Your task to perform on an android device: open the mobile data screen to see how much data has been used Image 0: 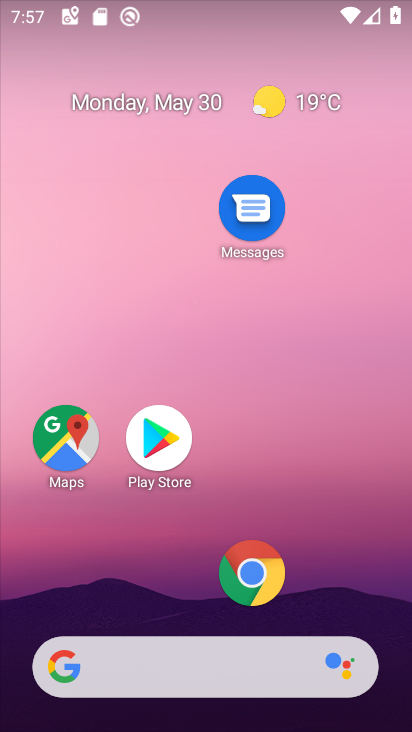
Step 0: drag from (174, 596) to (299, 6)
Your task to perform on an android device: open the mobile data screen to see how much data has been used Image 1: 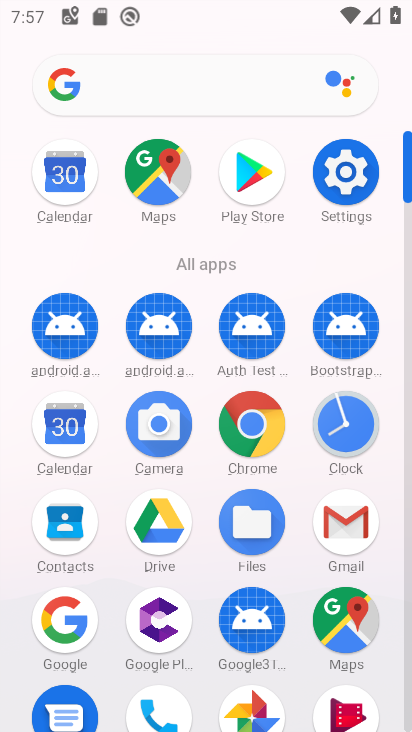
Step 1: click (360, 158)
Your task to perform on an android device: open the mobile data screen to see how much data has been used Image 2: 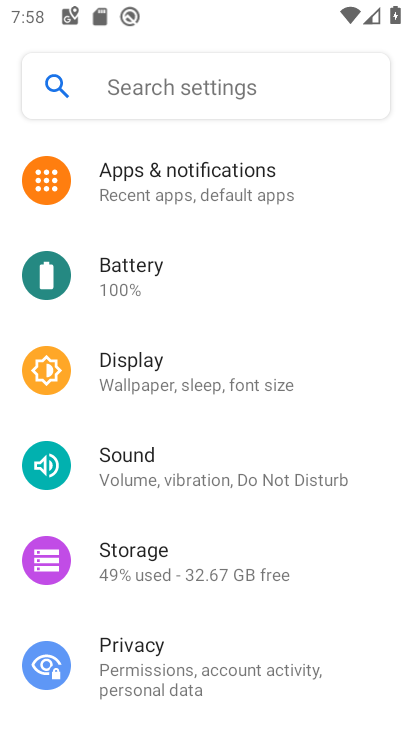
Step 2: drag from (352, 170) to (268, 622)
Your task to perform on an android device: open the mobile data screen to see how much data has been used Image 3: 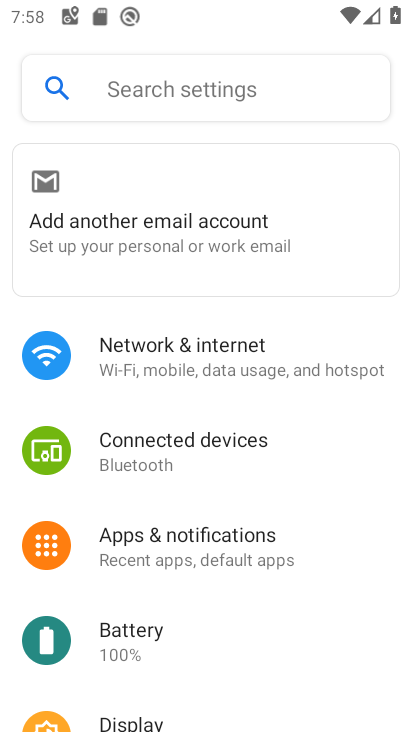
Step 3: click (218, 356)
Your task to perform on an android device: open the mobile data screen to see how much data has been used Image 4: 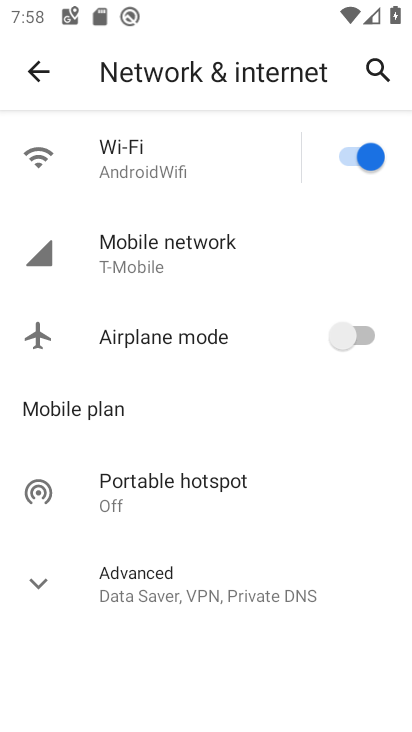
Step 4: click (158, 259)
Your task to perform on an android device: open the mobile data screen to see how much data has been used Image 5: 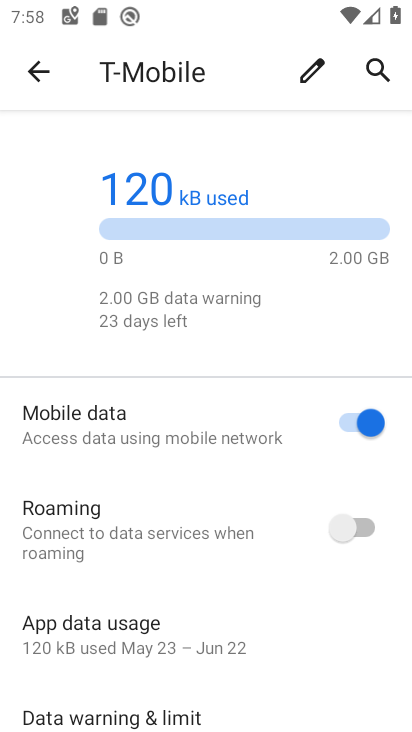
Step 5: click (182, 651)
Your task to perform on an android device: open the mobile data screen to see how much data has been used Image 6: 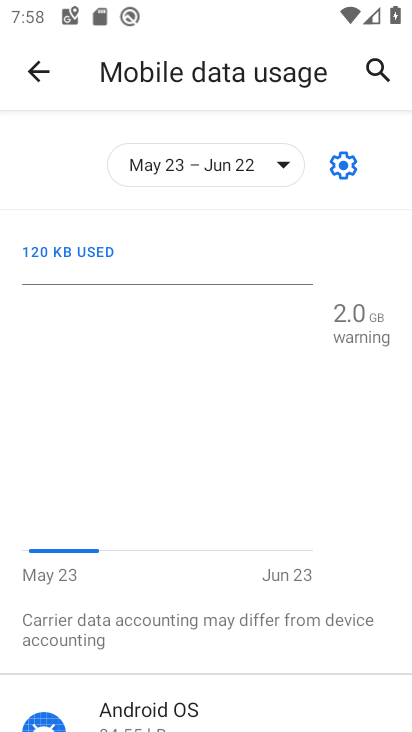
Step 6: task complete